Your task to perform on an android device: Go to calendar. Show me events next week Image 0: 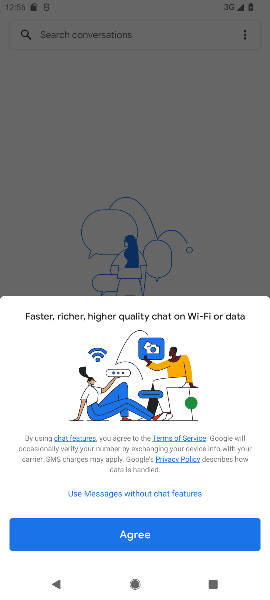
Step 0: press home button
Your task to perform on an android device: Go to calendar. Show me events next week Image 1: 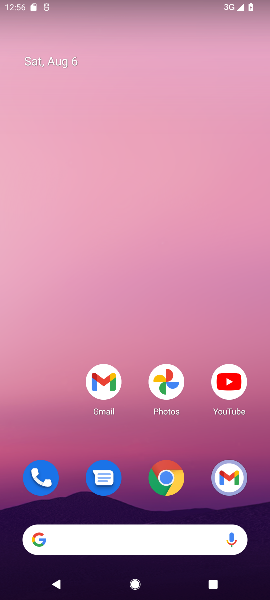
Step 1: drag from (134, 507) to (118, 122)
Your task to perform on an android device: Go to calendar. Show me events next week Image 2: 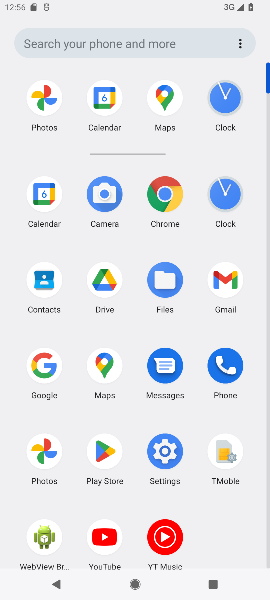
Step 2: click (101, 103)
Your task to perform on an android device: Go to calendar. Show me events next week Image 3: 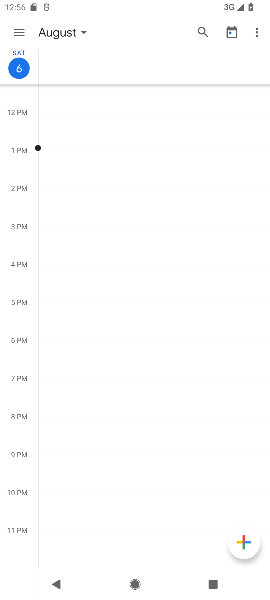
Step 3: click (61, 25)
Your task to perform on an android device: Go to calendar. Show me events next week Image 4: 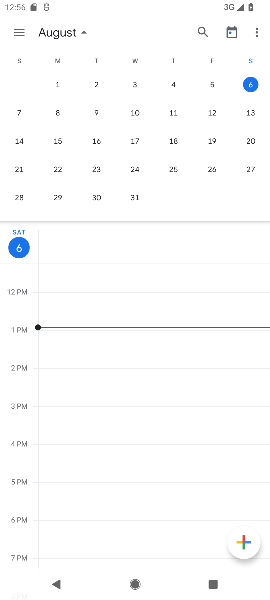
Step 4: click (218, 109)
Your task to perform on an android device: Go to calendar. Show me events next week Image 5: 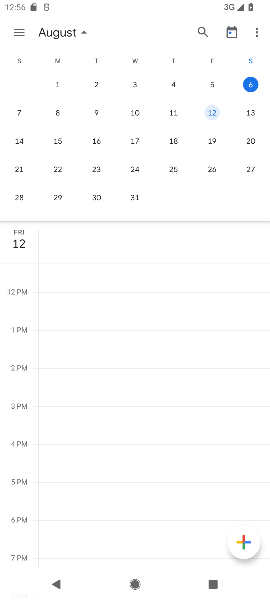
Step 5: click (176, 118)
Your task to perform on an android device: Go to calendar. Show me events next week Image 6: 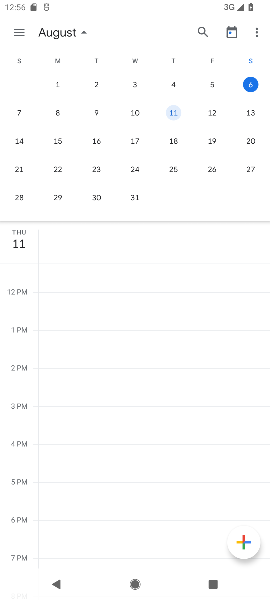
Step 6: click (133, 114)
Your task to perform on an android device: Go to calendar. Show me events next week Image 7: 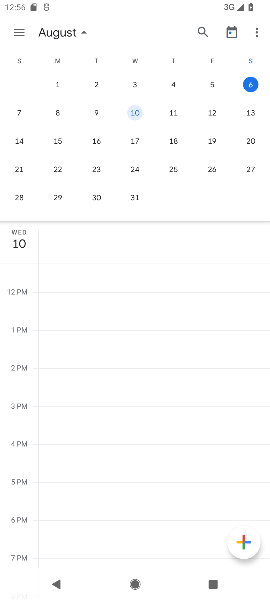
Step 7: task complete